Your task to perform on an android device: Open the calendar and show me this week's events? Image 0: 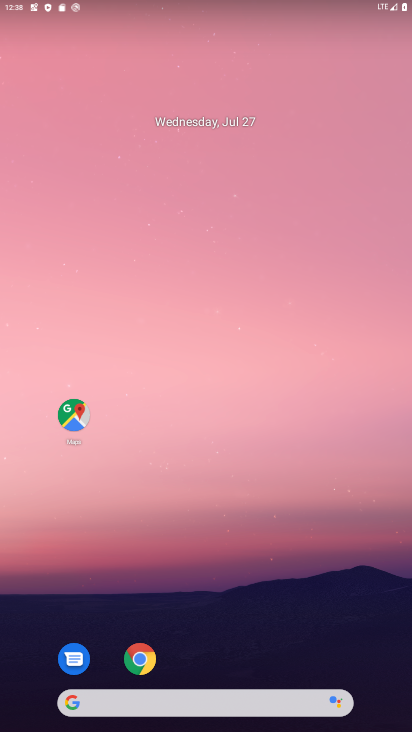
Step 0: drag from (250, 668) to (307, 206)
Your task to perform on an android device: Open the calendar and show me this week's events? Image 1: 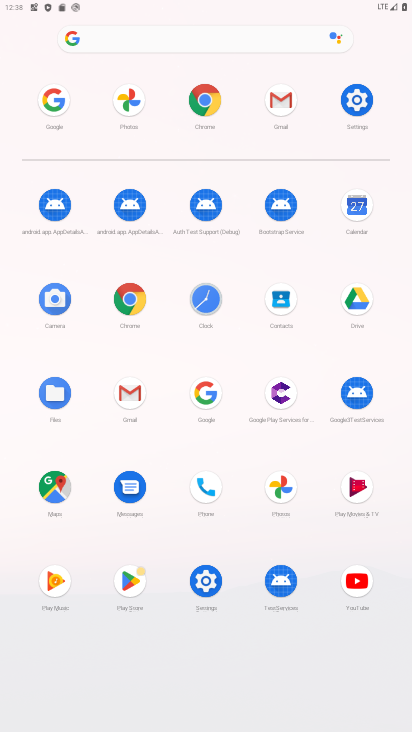
Step 1: click (350, 213)
Your task to perform on an android device: Open the calendar and show me this week's events? Image 2: 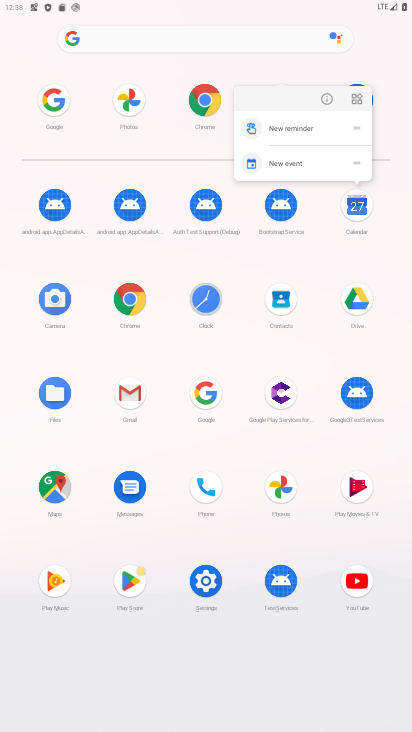
Step 2: click (362, 205)
Your task to perform on an android device: Open the calendar and show me this week's events? Image 3: 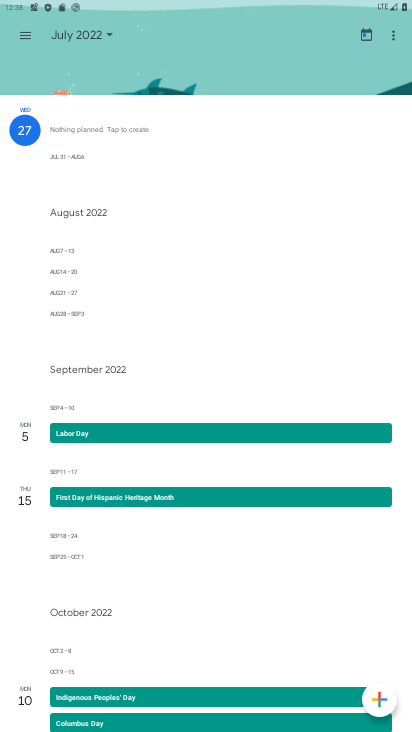
Step 3: click (76, 207)
Your task to perform on an android device: Open the calendar and show me this week's events? Image 4: 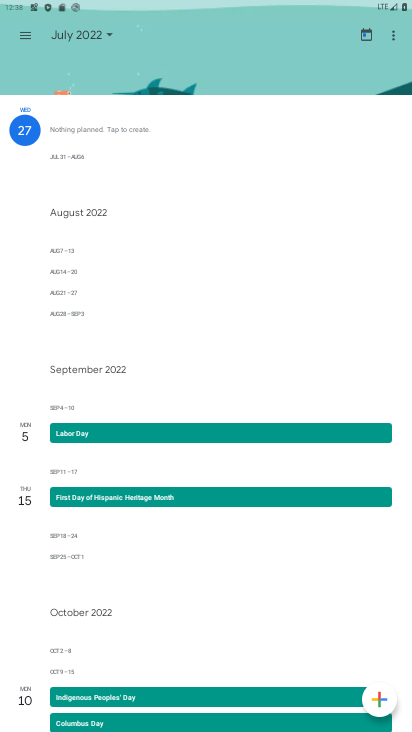
Step 4: click (93, 204)
Your task to perform on an android device: Open the calendar and show me this week's events? Image 5: 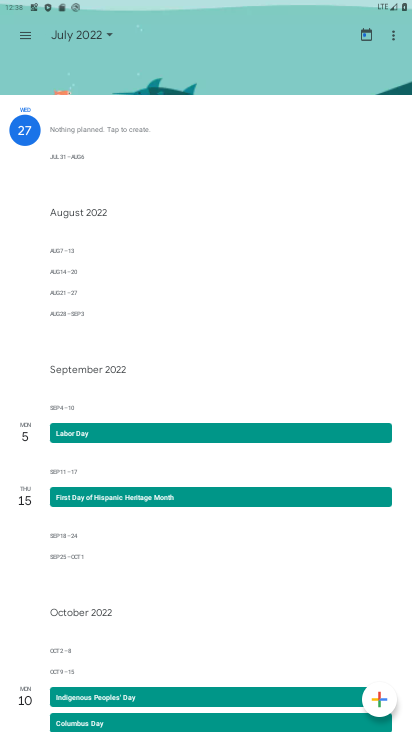
Step 5: click (78, 251)
Your task to perform on an android device: Open the calendar and show me this week's events? Image 6: 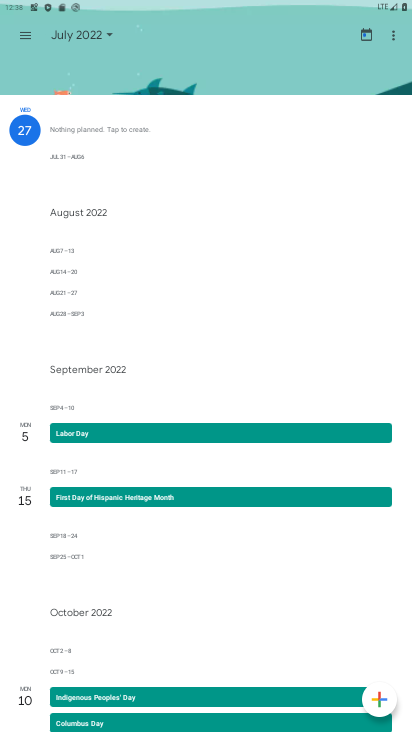
Step 6: click (67, 269)
Your task to perform on an android device: Open the calendar and show me this week's events? Image 7: 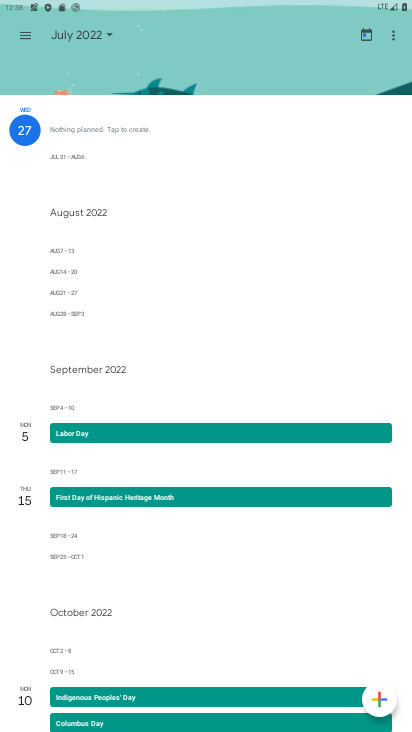
Step 7: click (70, 288)
Your task to perform on an android device: Open the calendar and show me this week's events? Image 8: 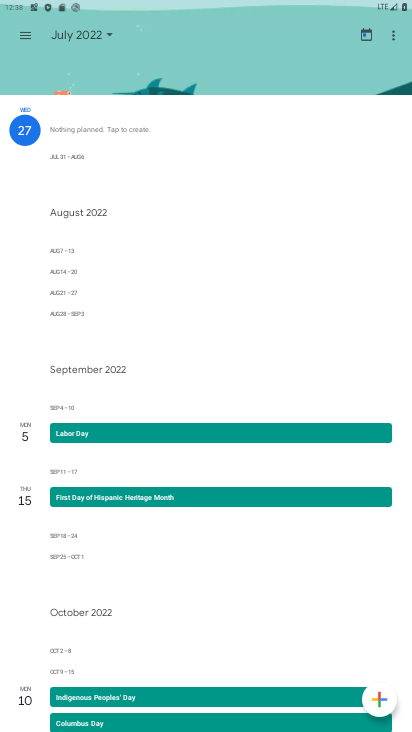
Step 8: click (70, 315)
Your task to perform on an android device: Open the calendar and show me this week's events? Image 9: 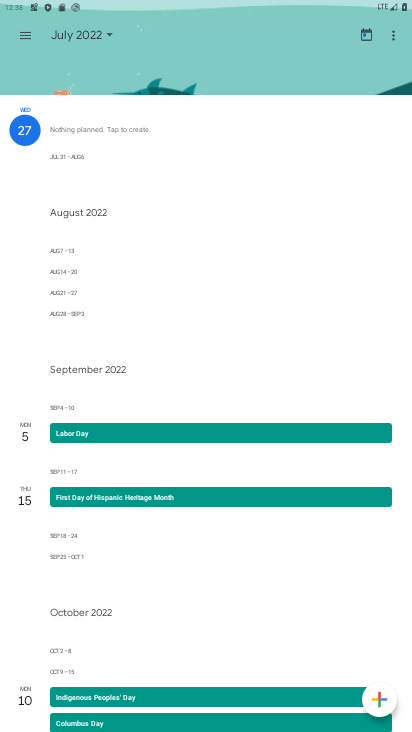
Step 9: click (95, 39)
Your task to perform on an android device: Open the calendar and show me this week's events? Image 10: 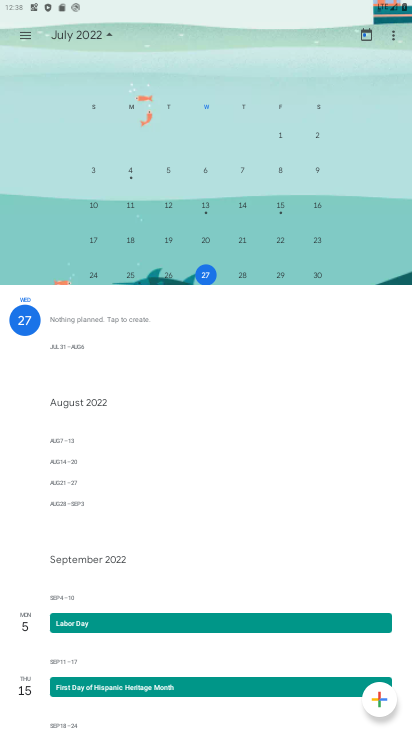
Step 10: task complete